Your task to perform on an android device: Open calendar and show me the second week of next month Image 0: 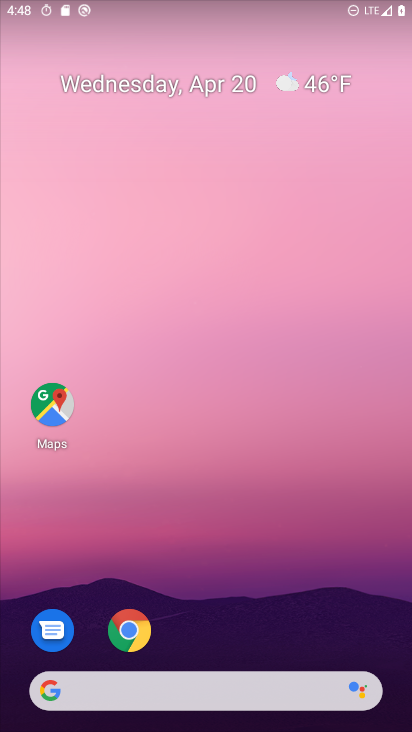
Step 0: drag from (330, 459) to (344, 24)
Your task to perform on an android device: Open calendar and show me the second week of next month Image 1: 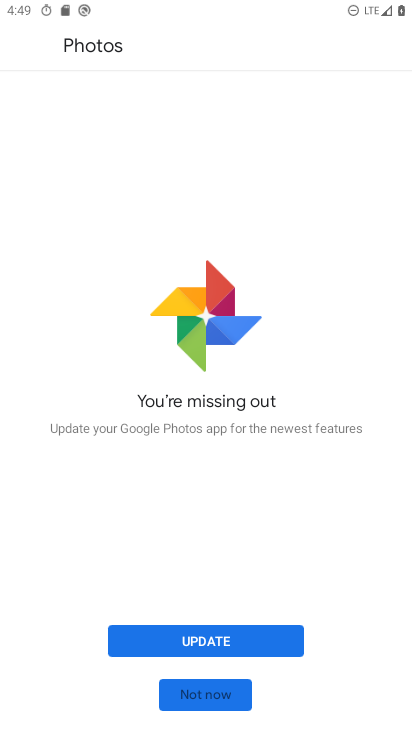
Step 1: press home button
Your task to perform on an android device: Open calendar and show me the second week of next month Image 2: 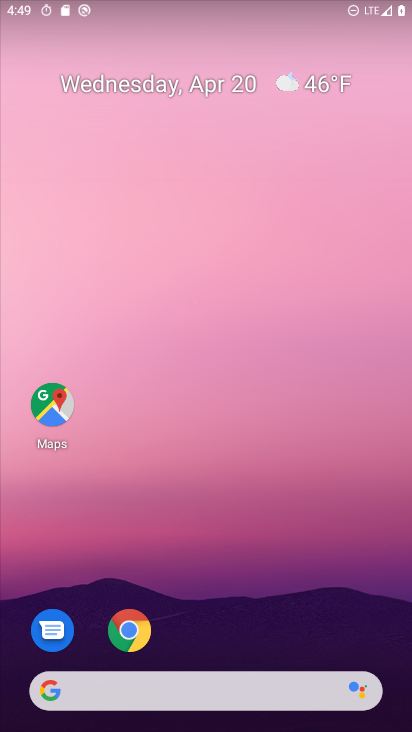
Step 2: drag from (302, 268) to (298, 113)
Your task to perform on an android device: Open calendar and show me the second week of next month Image 3: 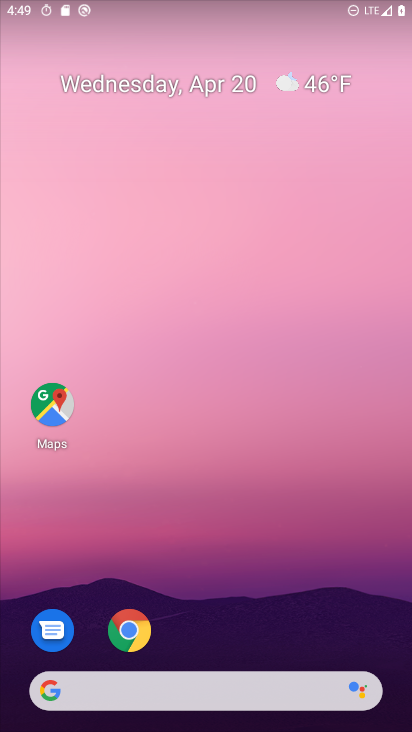
Step 3: drag from (242, 638) to (287, 159)
Your task to perform on an android device: Open calendar and show me the second week of next month Image 4: 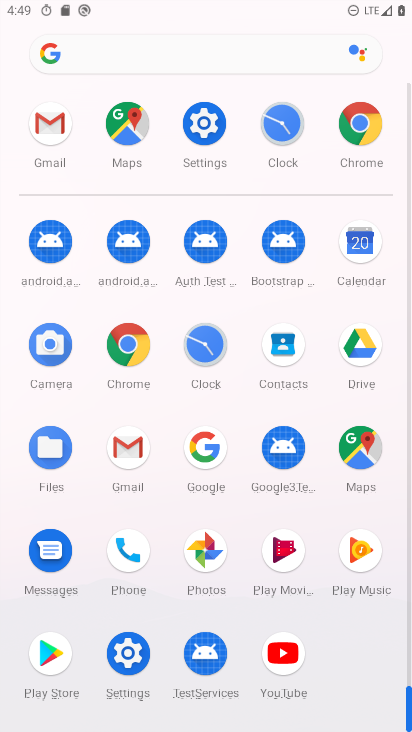
Step 4: click (341, 250)
Your task to perform on an android device: Open calendar and show me the second week of next month Image 5: 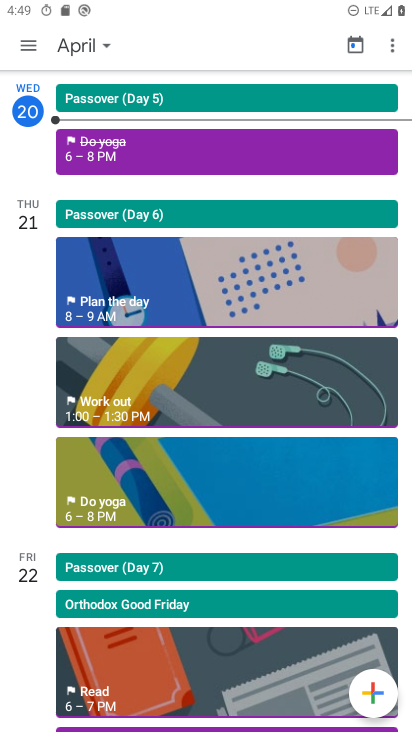
Step 5: click (18, 41)
Your task to perform on an android device: Open calendar and show me the second week of next month Image 6: 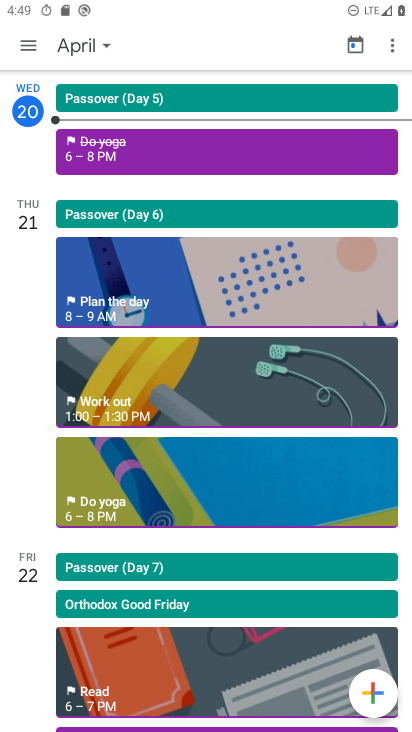
Step 6: click (108, 38)
Your task to perform on an android device: Open calendar and show me the second week of next month Image 7: 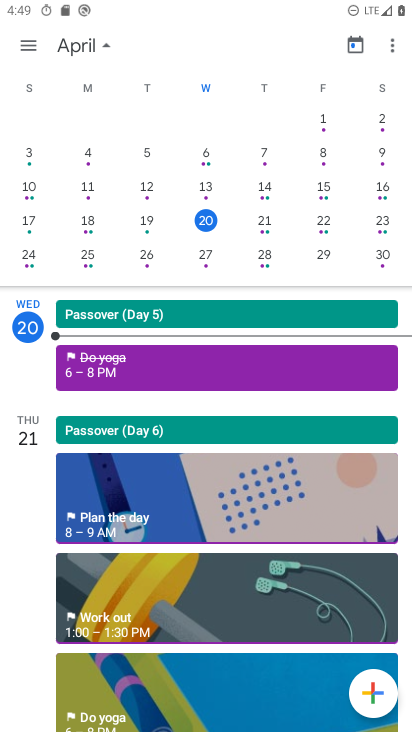
Step 7: drag from (341, 202) to (95, 204)
Your task to perform on an android device: Open calendar and show me the second week of next month Image 8: 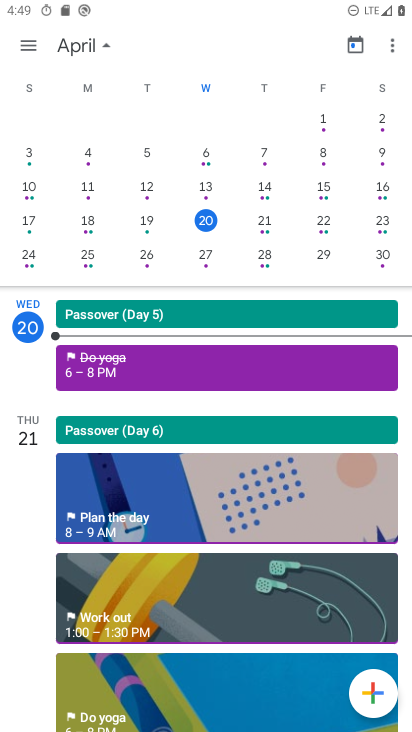
Step 8: drag from (356, 196) to (51, 210)
Your task to perform on an android device: Open calendar and show me the second week of next month Image 9: 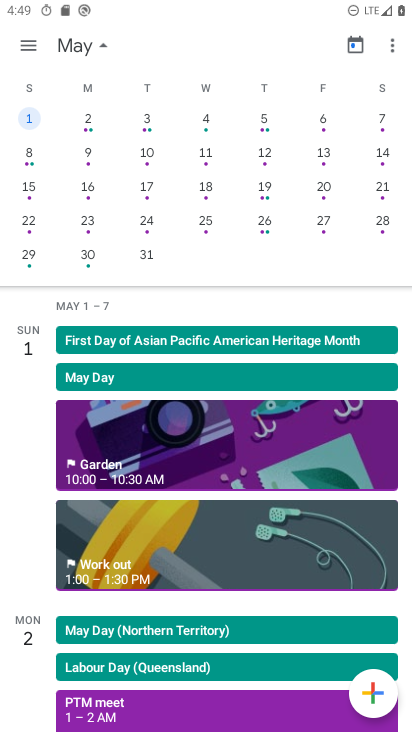
Step 9: click (320, 155)
Your task to perform on an android device: Open calendar and show me the second week of next month Image 10: 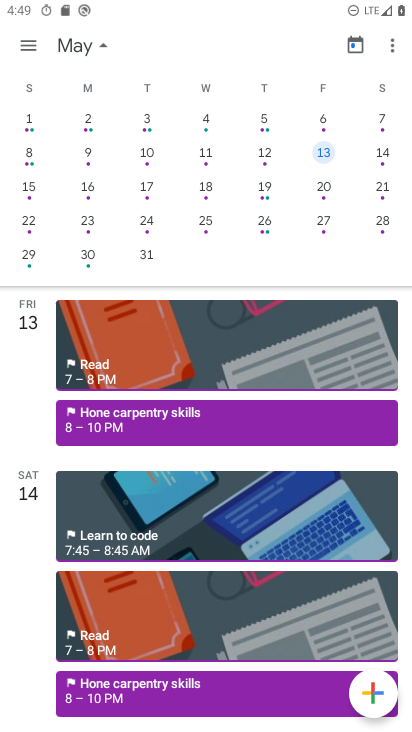
Step 10: task complete